Your task to perform on an android device: How much does a 3 bedroom apartment rent for in Dallas? Image 0: 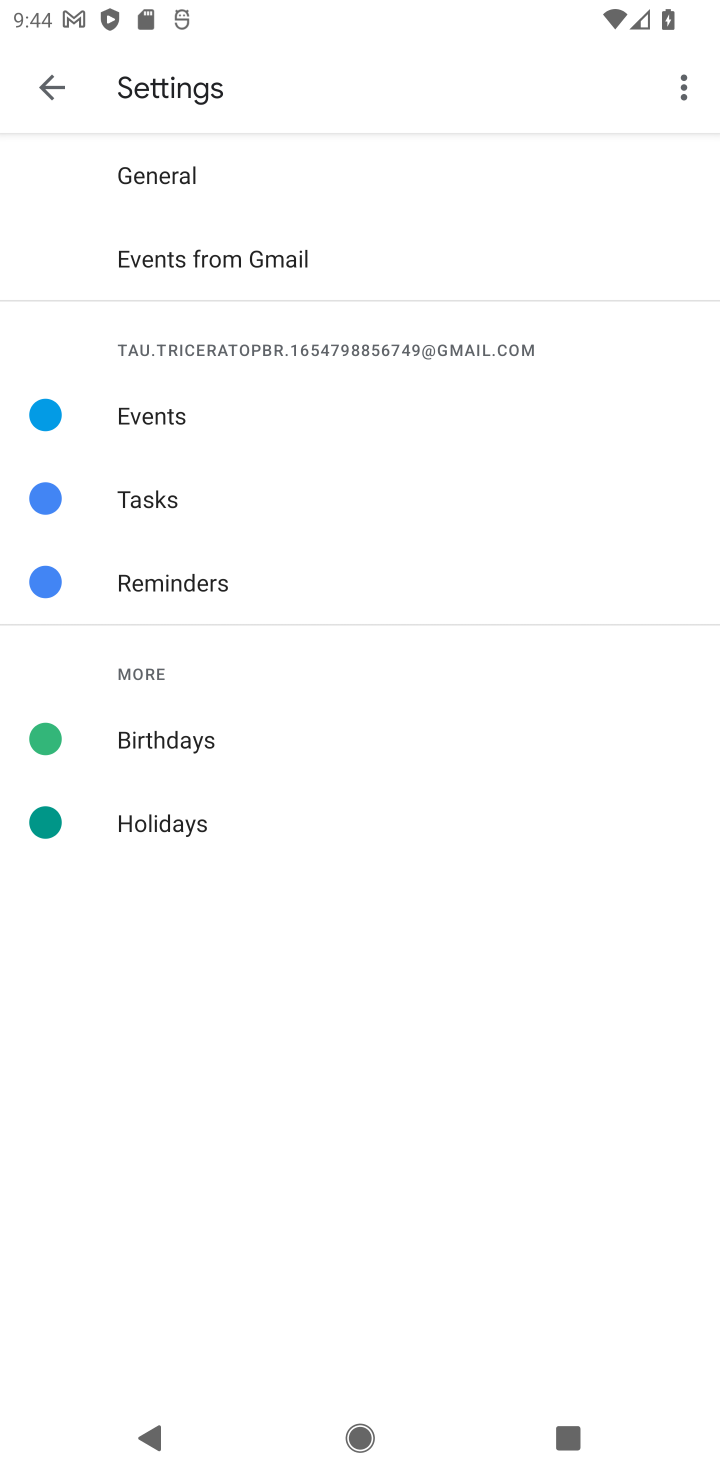
Step 0: press home button
Your task to perform on an android device: How much does a 3 bedroom apartment rent for in Dallas? Image 1: 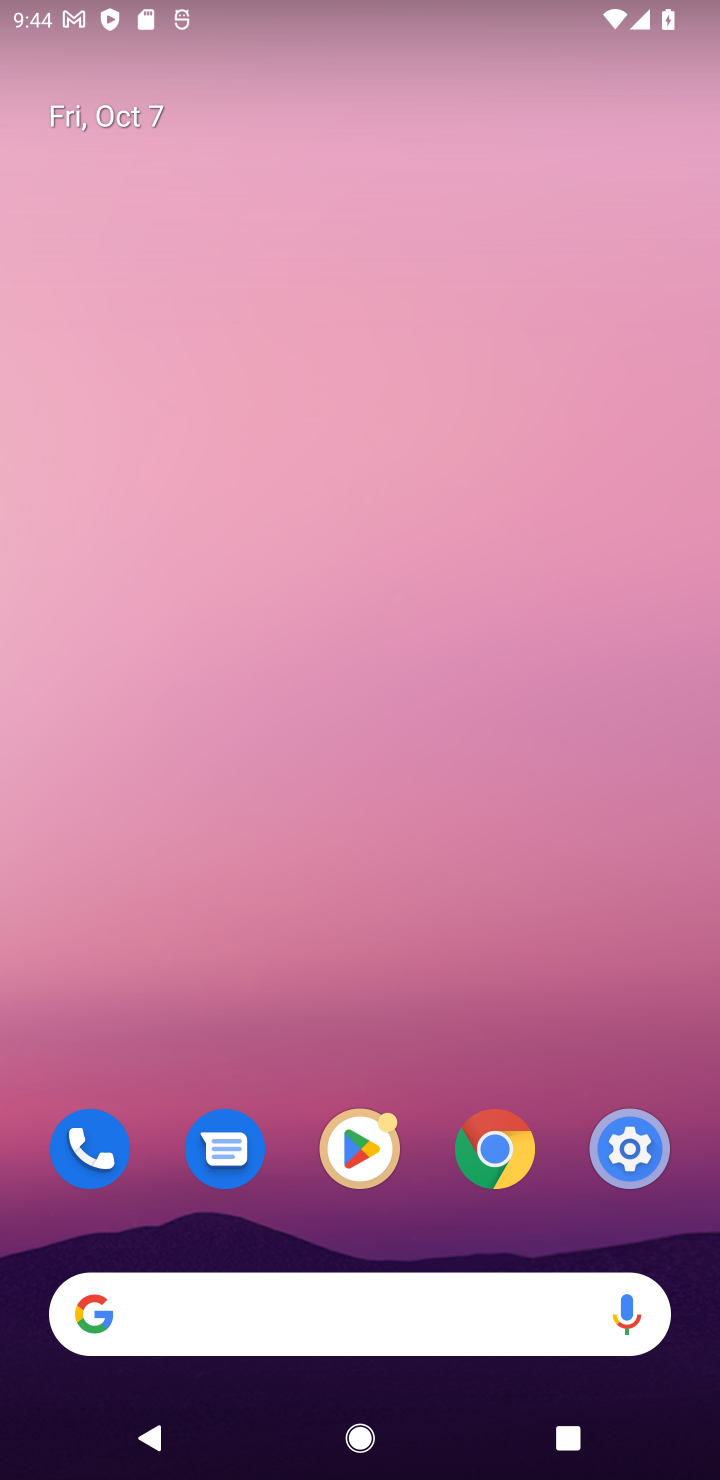
Step 1: click (332, 1315)
Your task to perform on an android device: How much does a 3 bedroom apartment rent for in Dallas? Image 2: 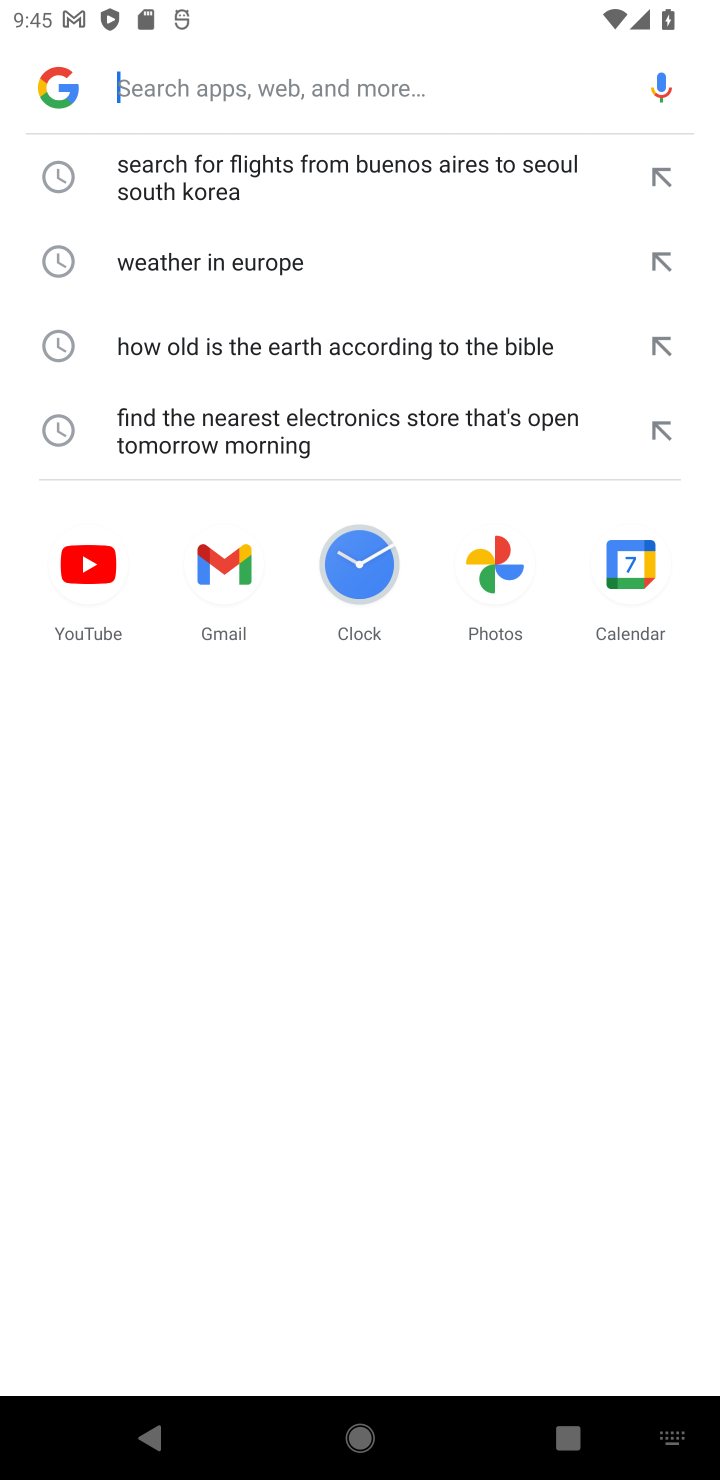
Step 2: type "How much does a 3 bedroom apartment rent for in Dallas?"
Your task to perform on an android device: How much does a 3 bedroom apartment rent for in Dallas? Image 3: 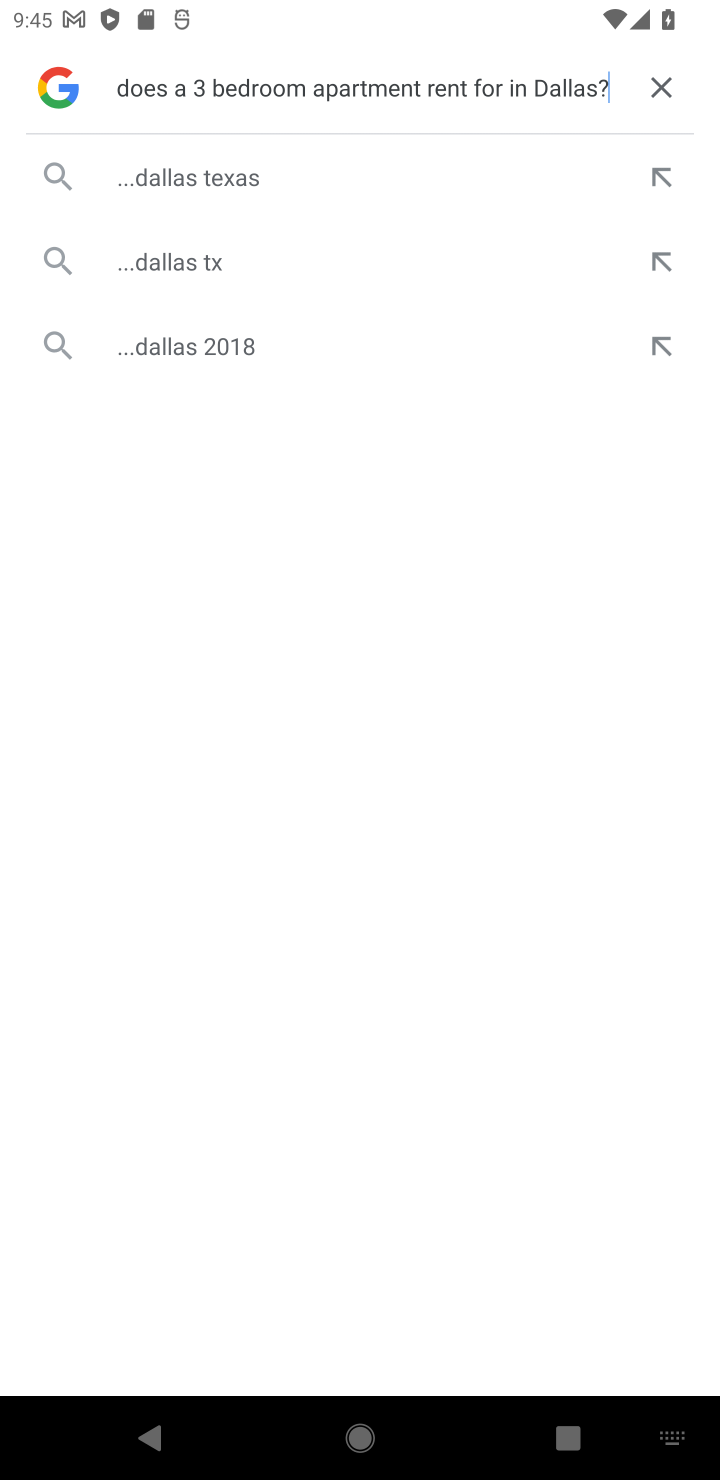
Step 3: click (346, 206)
Your task to perform on an android device: How much does a 3 bedroom apartment rent for in Dallas? Image 4: 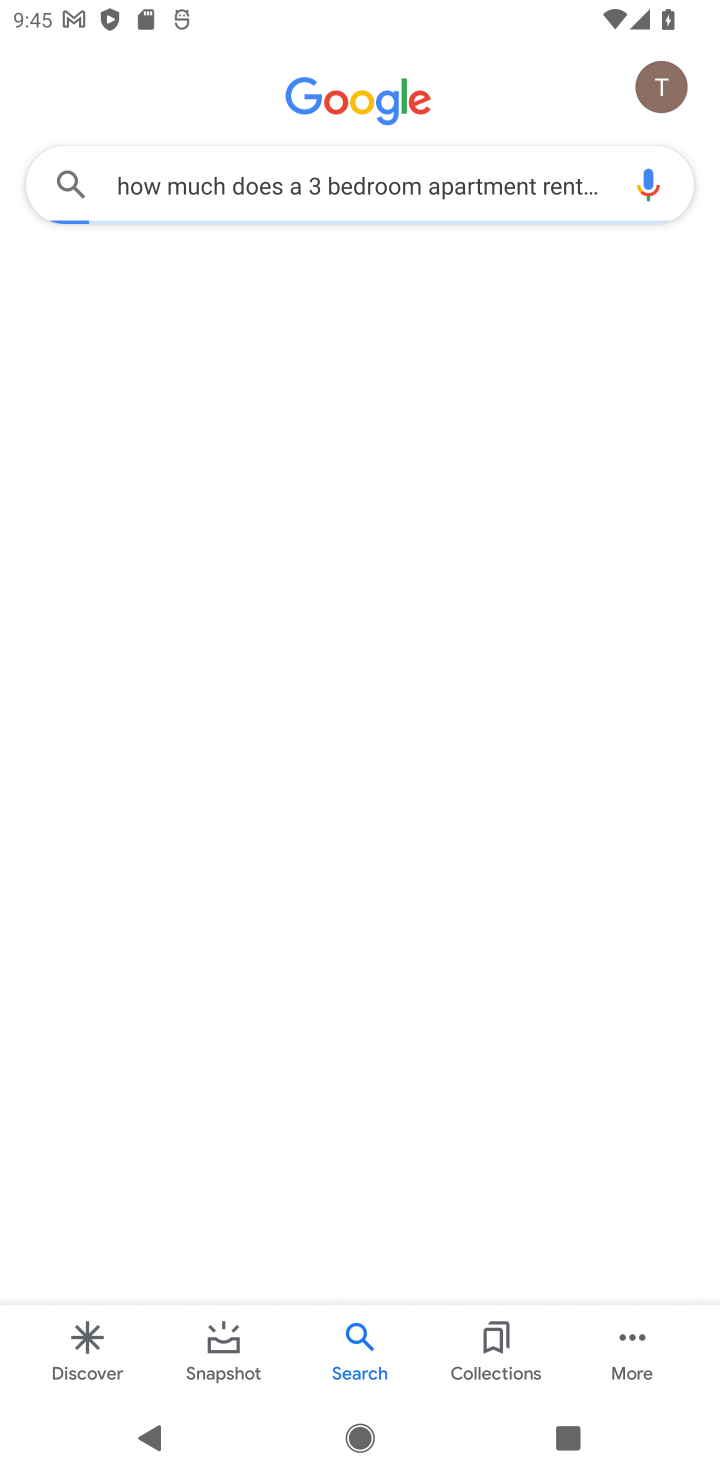
Step 4: task complete